Your task to perform on an android device: open a bookmark in the chrome app Image 0: 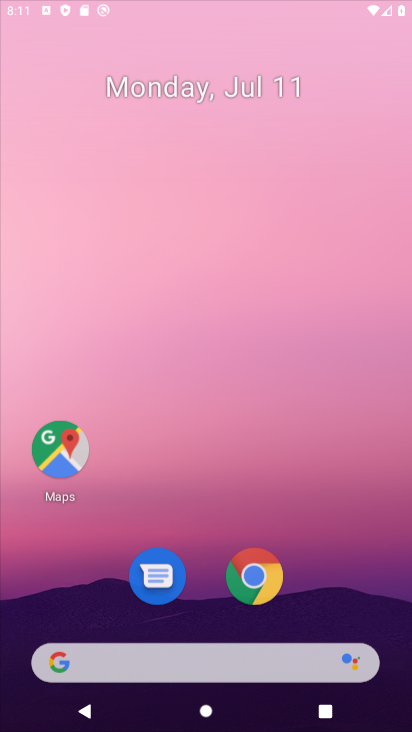
Step 0: drag from (106, 137) to (94, 99)
Your task to perform on an android device: open a bookmark in the chrome app Image 1: 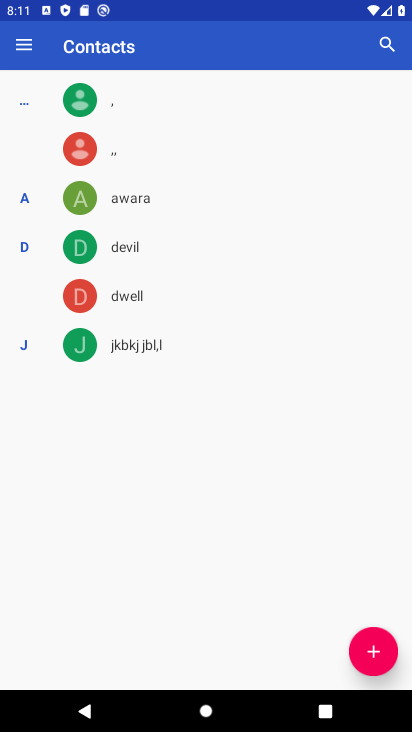
Step 1: press home button
Your task to perform on an android device: open a bookmark in the chrome app Image 2: 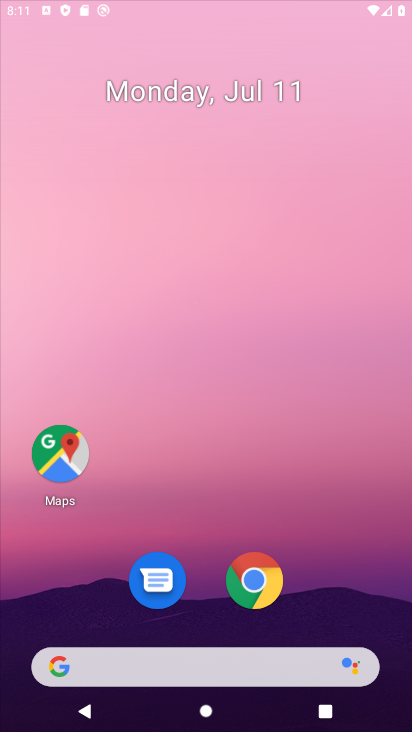
Step 2: drag from (343, 624) to (154, 91)
Your task to perform on an android device: open a bookmark in the chrome app Image 3: 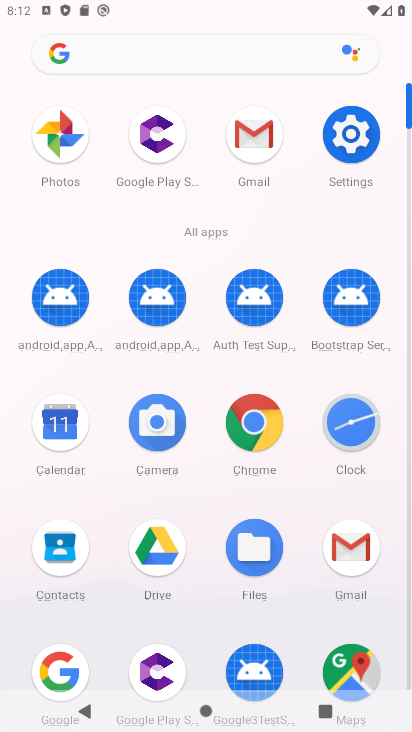
Step 3: click (250, 441)
Your task to perform on an android device: open a bookmark in the chrome app Image 4: 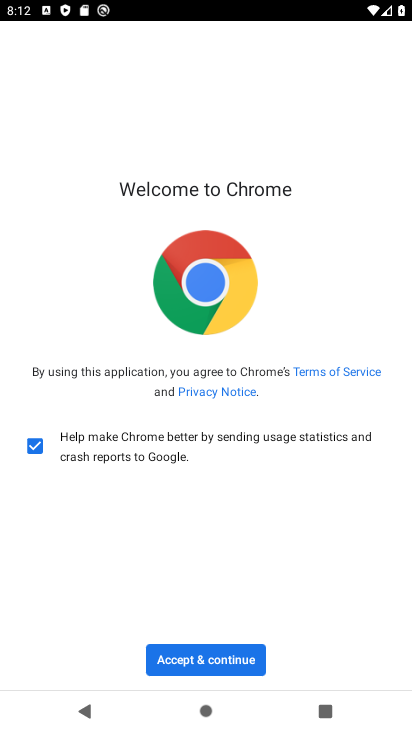
Step 4: click (202, 653)
Your task to perform on an android device: open a bookmark in the chrome app Image 5: 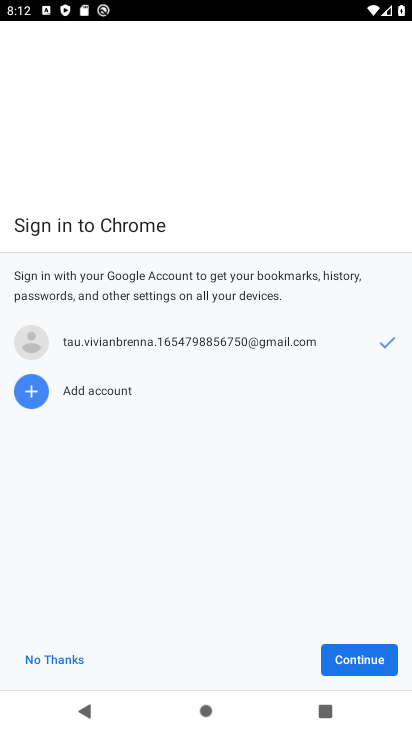
Step 5: click (352, 661)
Your task to perform on an android device: open a bookmark in the chrome app Image 6: 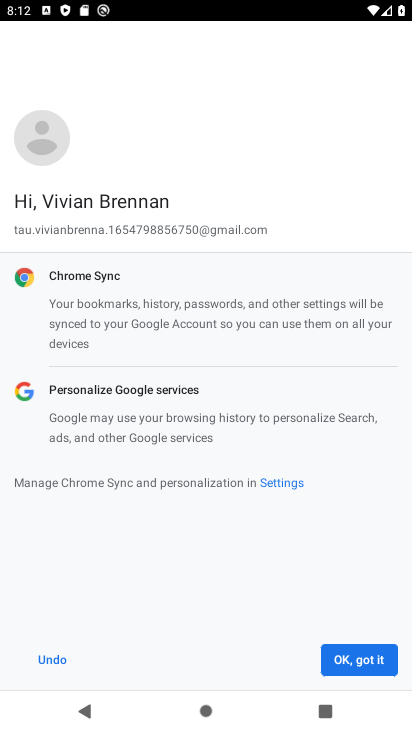
Step 6: click (352, 661)
Your task to perform on an android device: open a bookmark in the chrome app Image 7: 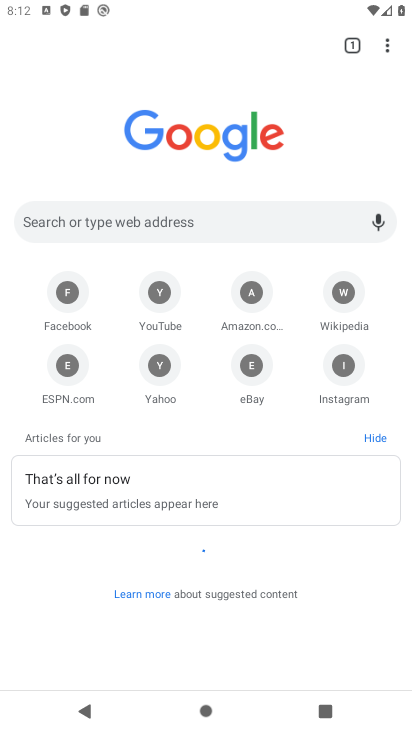
Step 7: click (385, 40)
Your task to perform on an android device: open a bookmark in the chrome app Image 8: 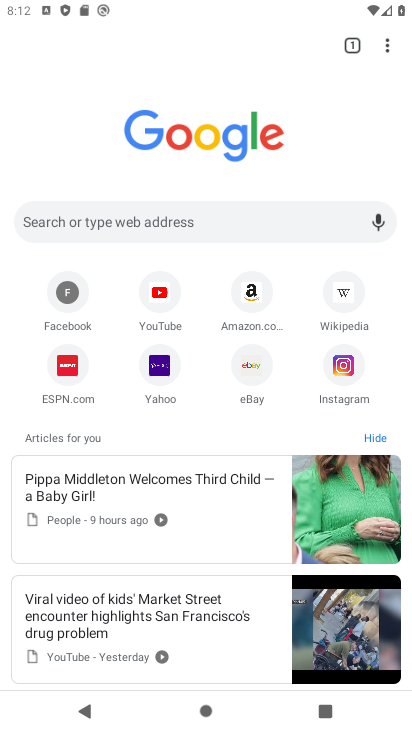
Step 8: click (385, 40)
Your task to perform on an android device: open a bookmark in the chrome app Image 9: 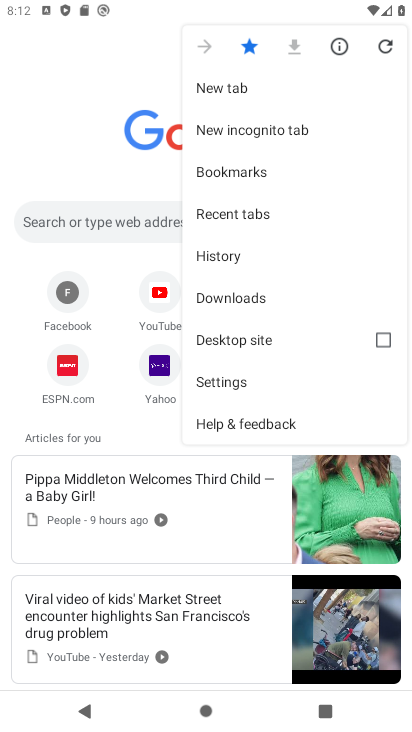
Step 9: click (241, 173)
Your task to perform on an android device: open a bookmark in the chrome app Image 10: 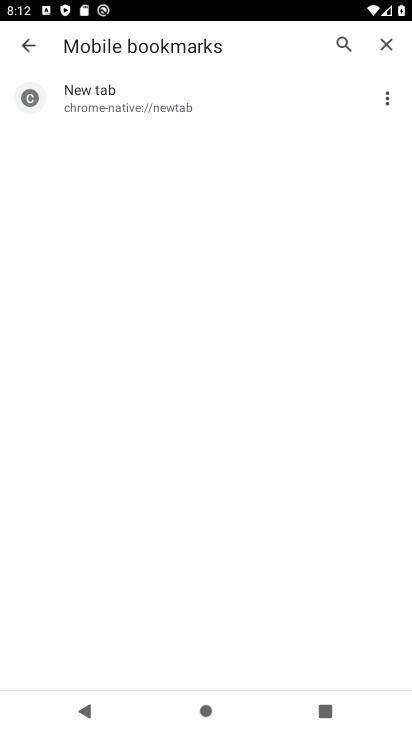
Step 10: task complete